Your task to perform on an android device: search for starred emails in the gmail app Image 0: 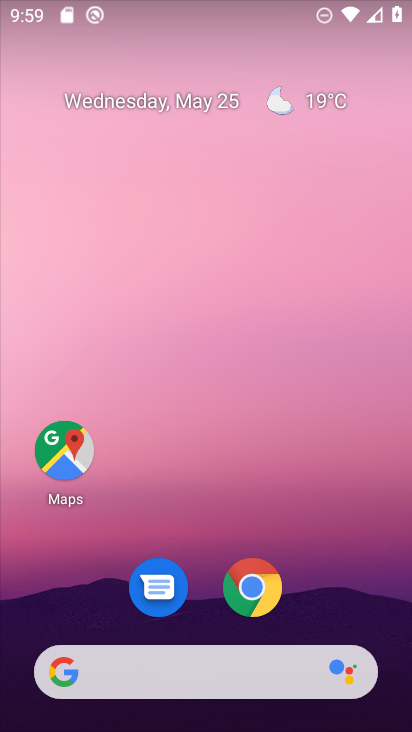
Step 0: drag from (378, 622) to (296, 51)
Your task to perform on an android device: search for starred emails in the gmail app Image 1: 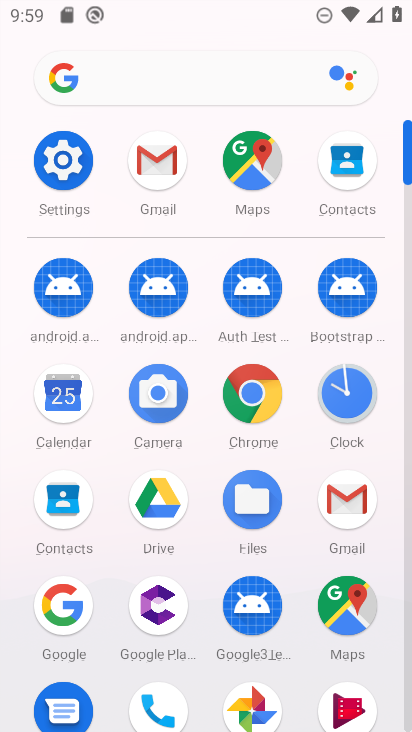
Step 1: click (405, 694)
Your task to perform on an android device: search for starred emails in the gmail app Image 2: 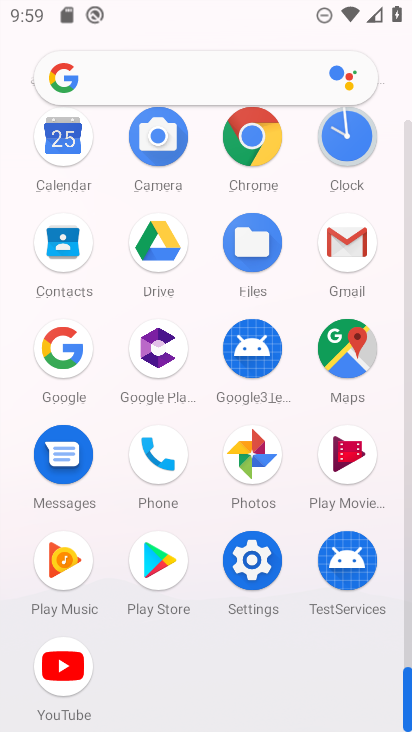
Step 2: click (344, 244)
Your task to perform on an android device: search for starred emails in the gmail app Image 3: 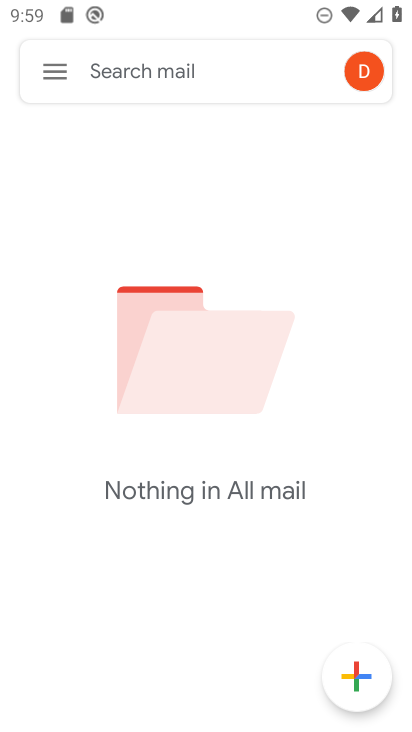
Step 3: click (60, 66)
Your task to perform on an android device: search for starred emails in the gmail app Image 4: 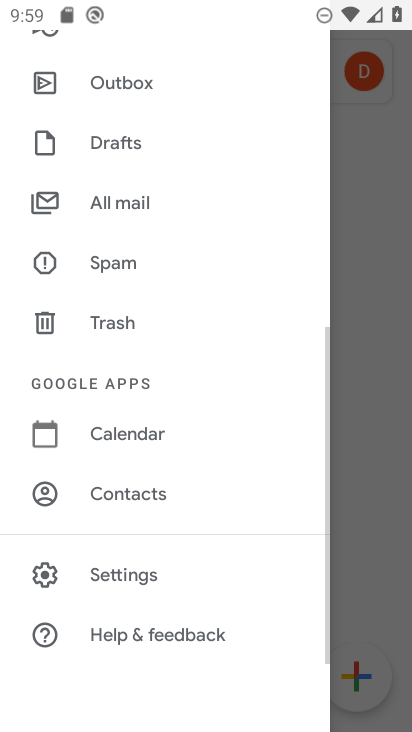
Step 4: drag from (239, 167) to (209, 525)
Your task to perform on an android device: search for starred emails in the gmail app Image 5: 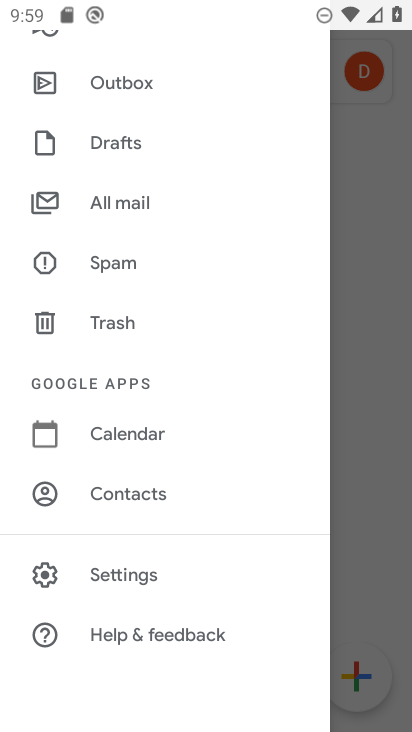
Step 5: drag from (221, 160) to (214, 587)
Your task to perform on an android device: search for starred emails in the gmail app Image 6: 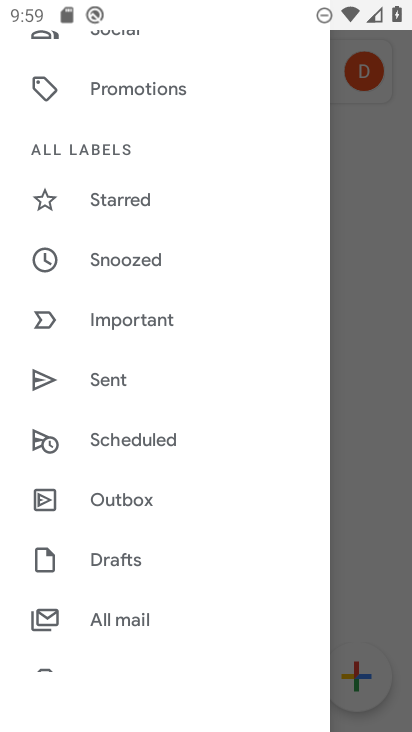
Step 6: click (112, 196)
Your task to perform on an android device: search for starred emails in the gmail app Image 7: 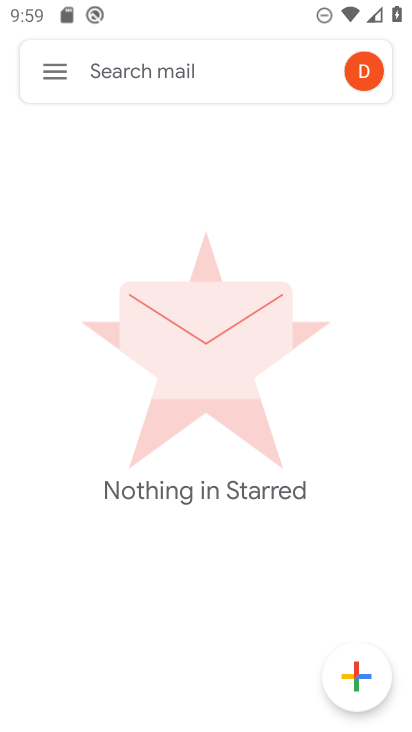
Step 7: task complete